Your task to perform on an android device: allow notifications from all sites in the chrome app Image 0: 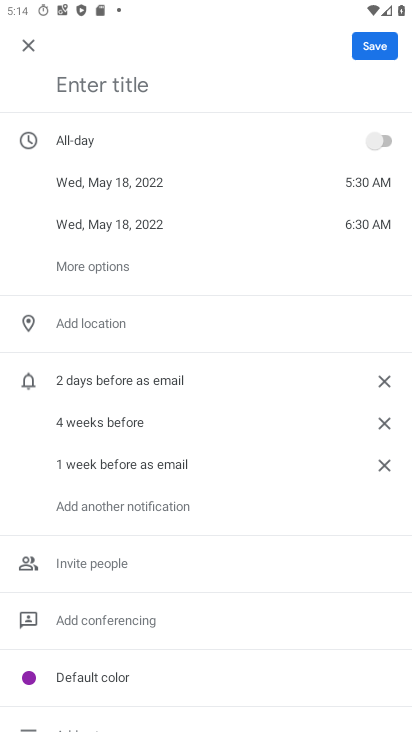
Step 0: press home button
Your task to perform on an android device: allow notifications from all sites in the chrome app Image 1: 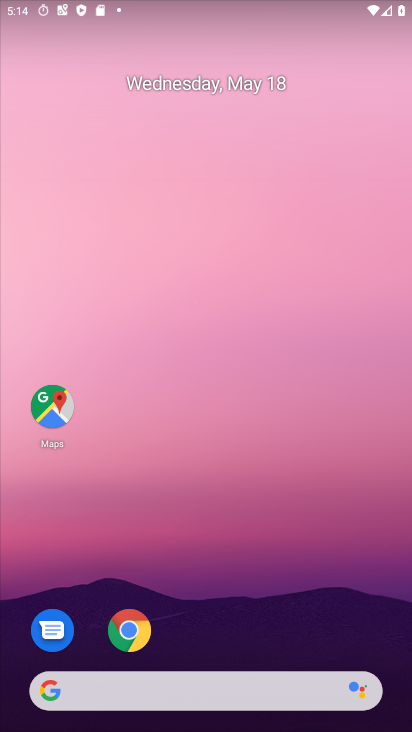
Step 1: click (136, 629)
Your task to perform on an android device: allow notifications from all sites in the chrome app Image 2: 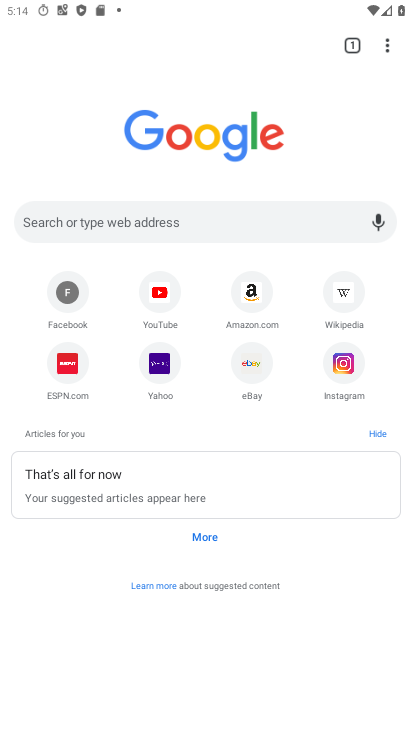
Step 2: click (386, 50)
Your task to perform on an android device: allow notifications from all sites in the chrome app Image 3: 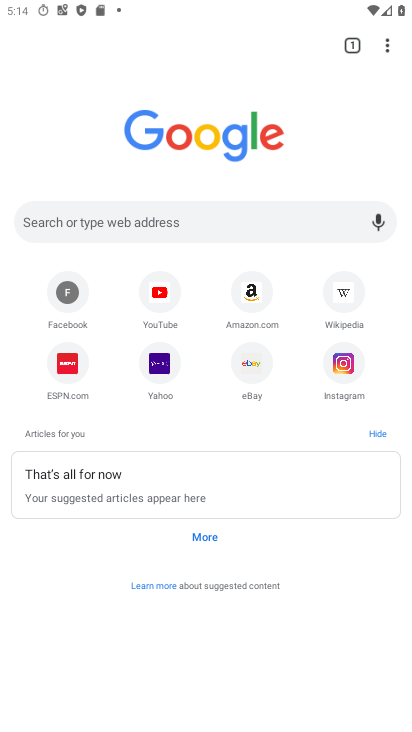
Step 3: click (384, 41)
Your task to perform on an android device: allow notifications from all sites in the chrome app Image 4: 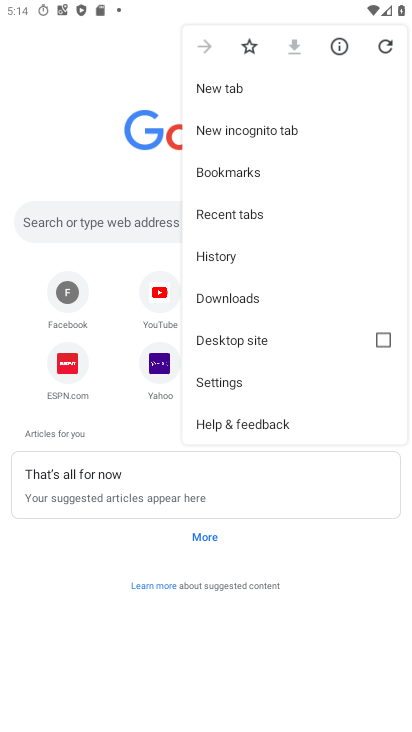
Step 4: click (230, 378)
Your task to perform on an android device: allow notifications from all sites in the chrome app Image 5: 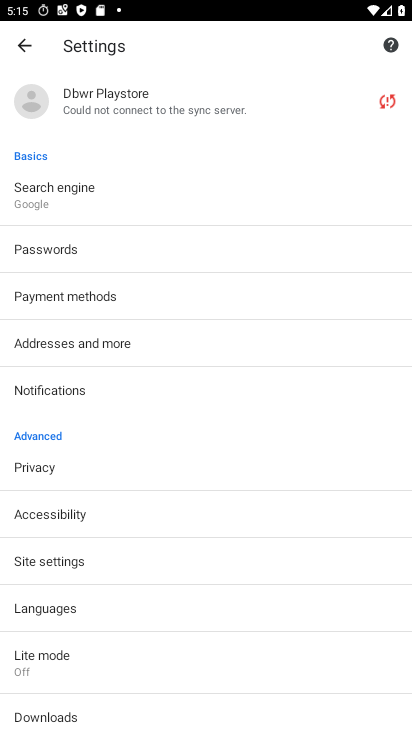
Step 5: click (61, 573)
Your task to perform on an android device: allow notifications from all sites in the chrome app Image 6: 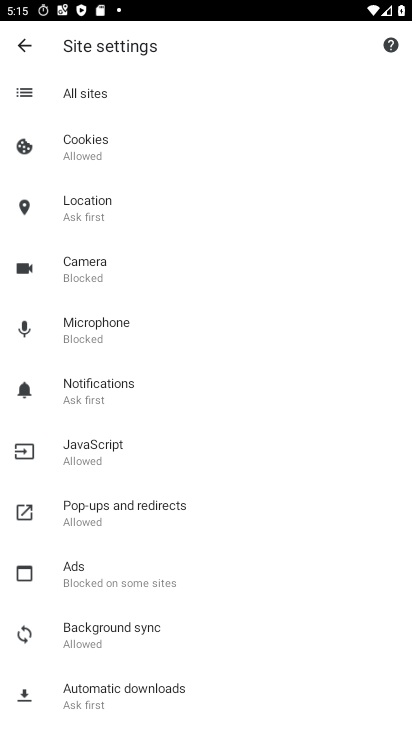
Step 6: click (80, 384)
Your task to perform on an android device: allow notifications from all sites in the chrome app Image 7: 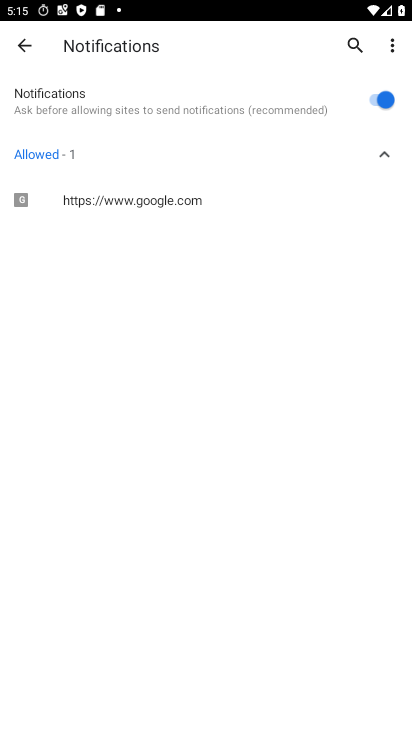
Step 7: task complete